Your task to perform on an android device: set default search engine in the chrome app Image 0: 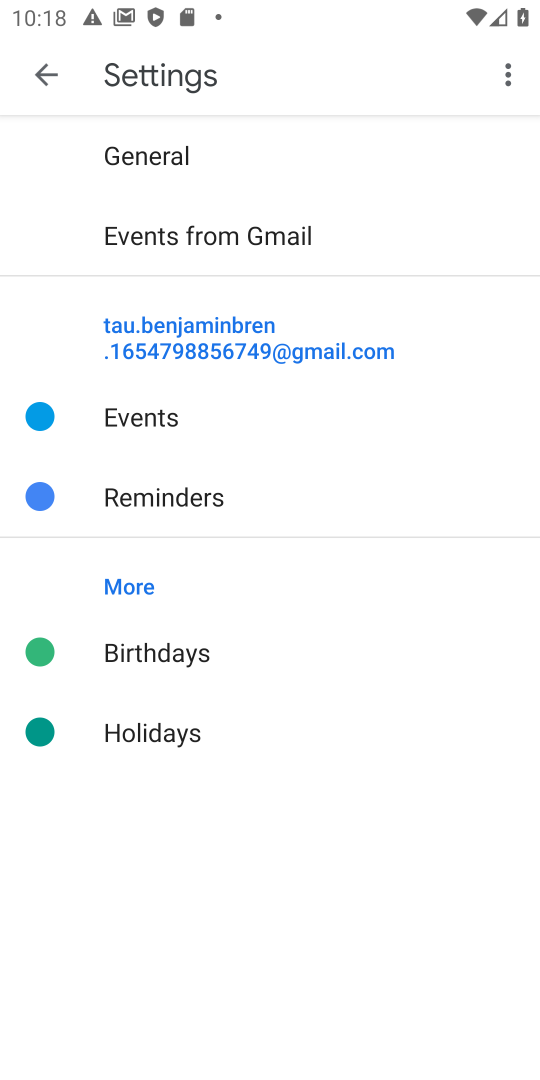
Step 0: press home button
Your task to perform on an android device: set default search engine in the chrome app Image 1: 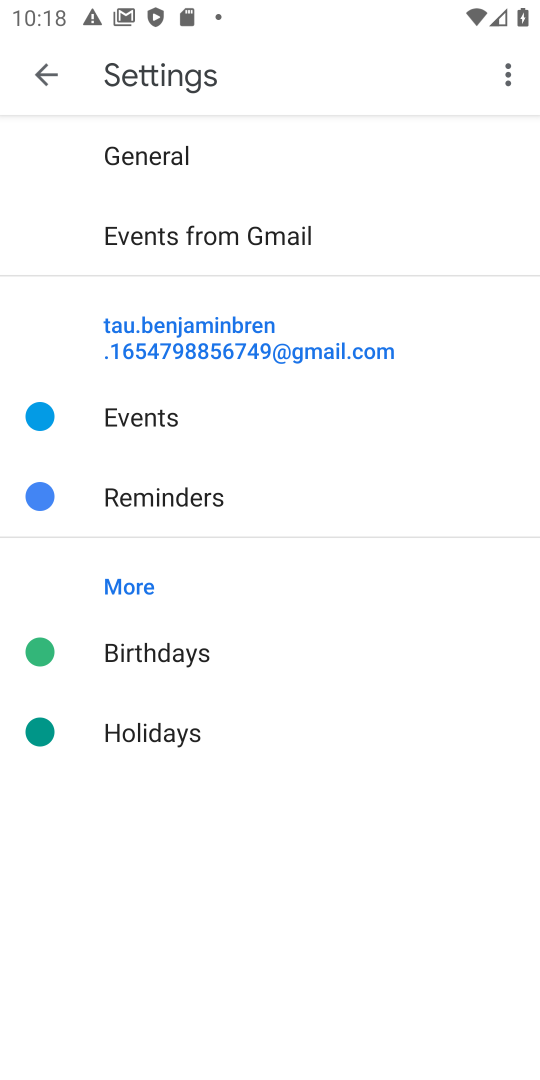
Step 1: press home button
Your task to perform on an android device: set default search engine in the chrome app Image 2: 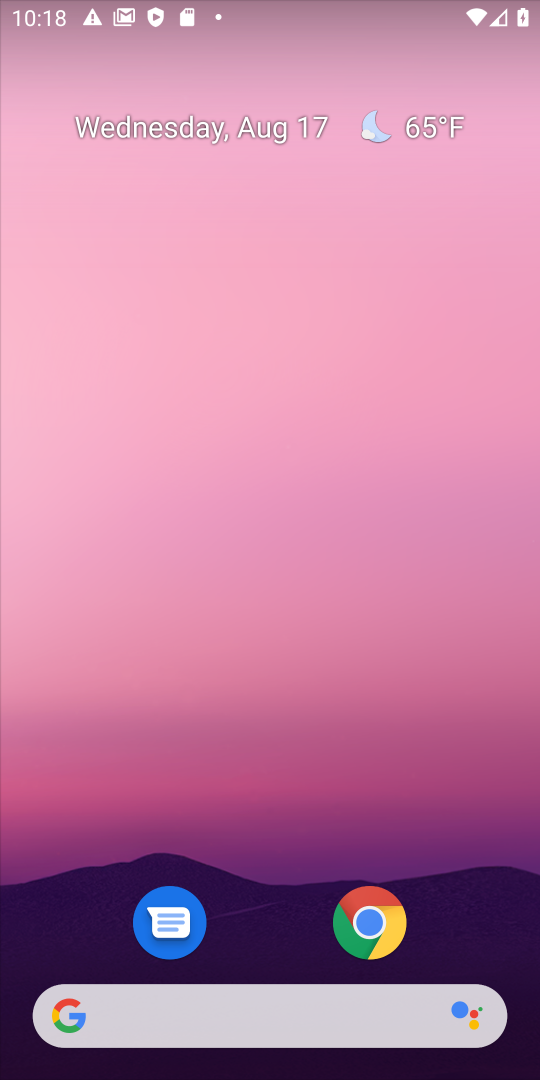
Step 2: drag from (303, 926) to (267, 257)
Your task to perform on an android device: set default search engine in the chrome app Image 3: 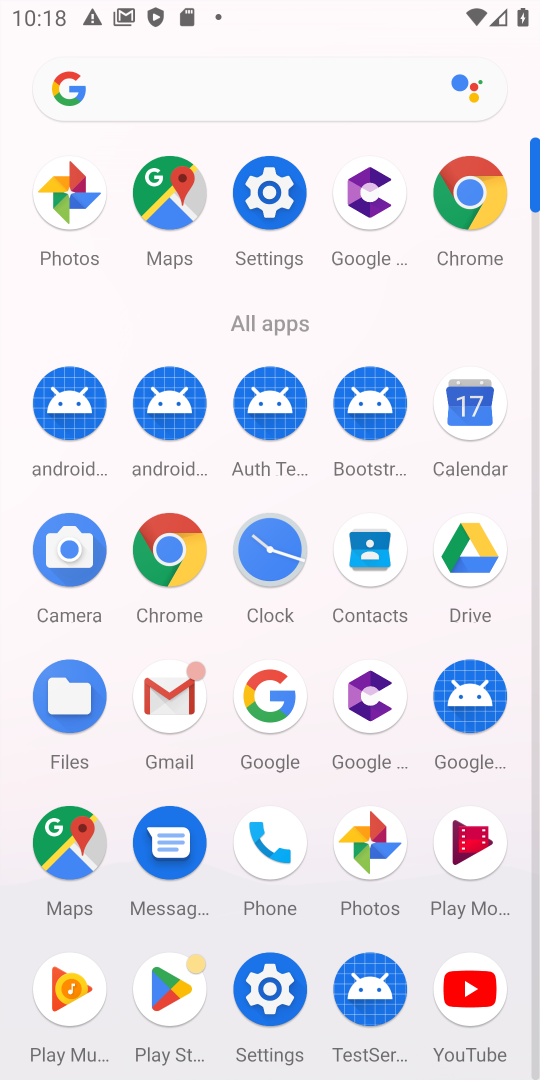
Step 3: click (160, 546)
Your task to perform on an android device: set default search engine in the chrome app Image 4: 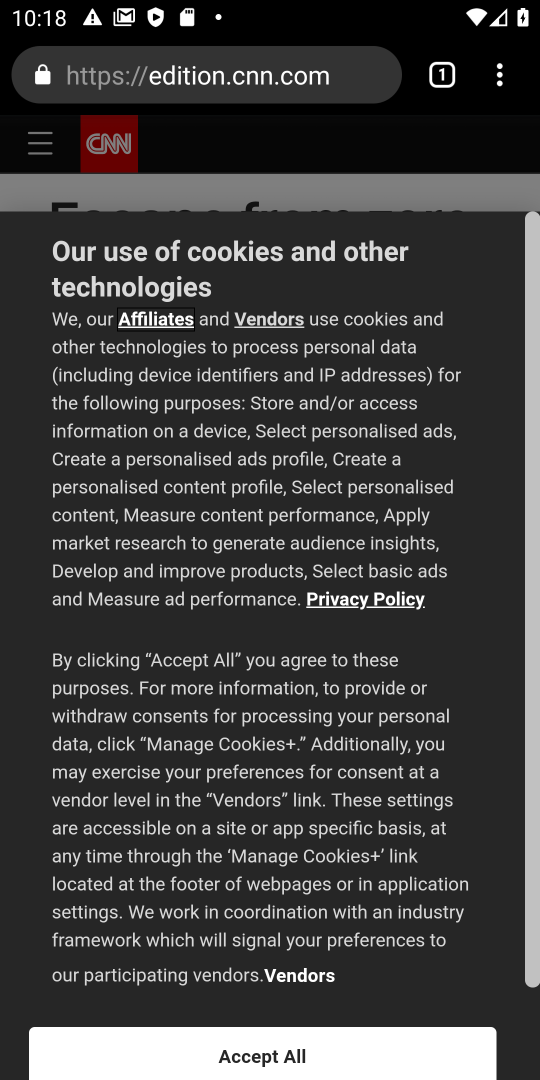
Step 4: drag from (498, 58) to (297, 841)
Your task to perform on an android device: set default search engine in the chrome app Image 5: 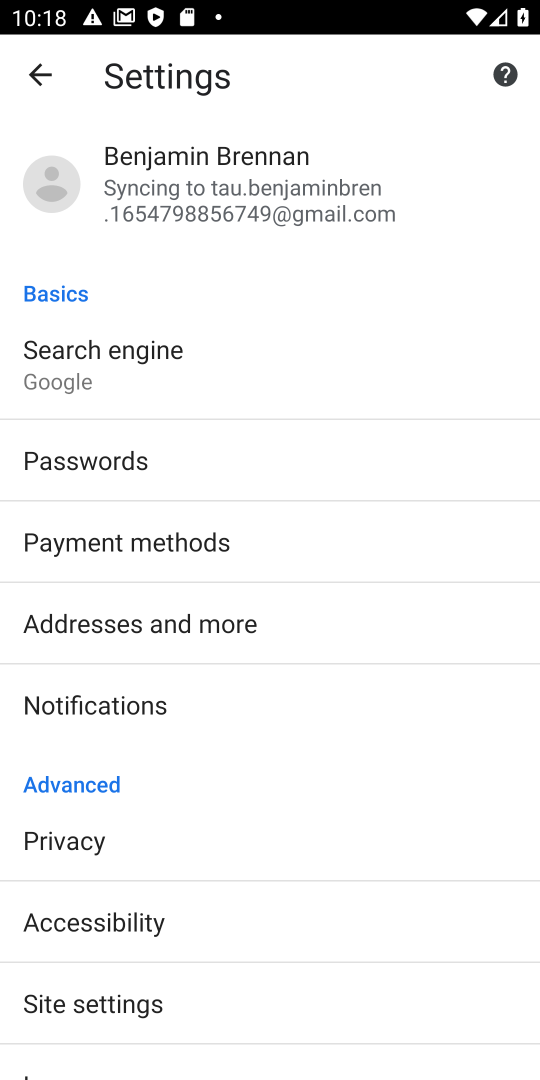
Step 5: click (126, 385)
Your task to perform on an android device: set default search engine in the chrome app Image 6: 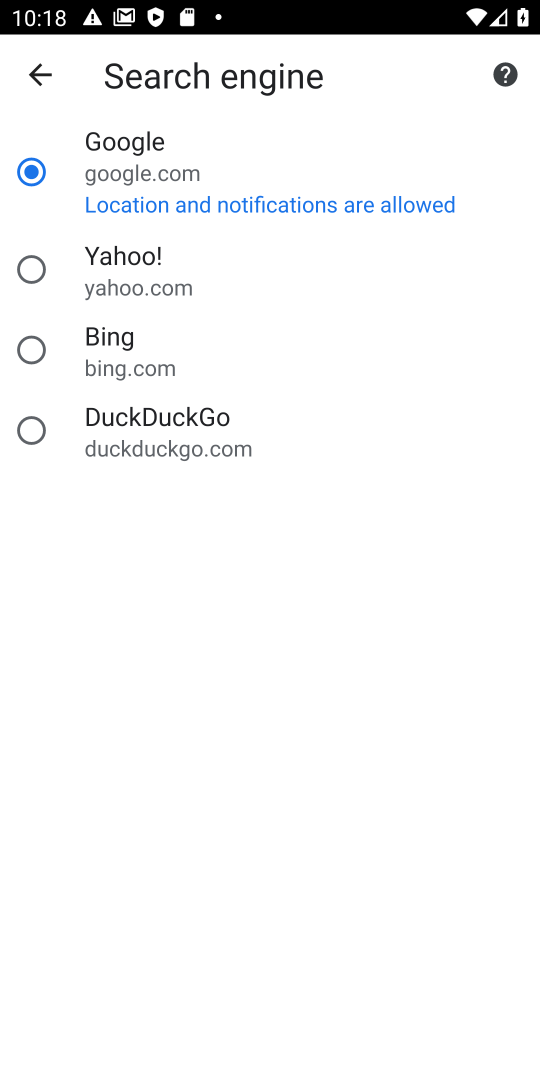
Step 6: task complete